Your task to perform on an android device: empty trash in google photos Image 0: 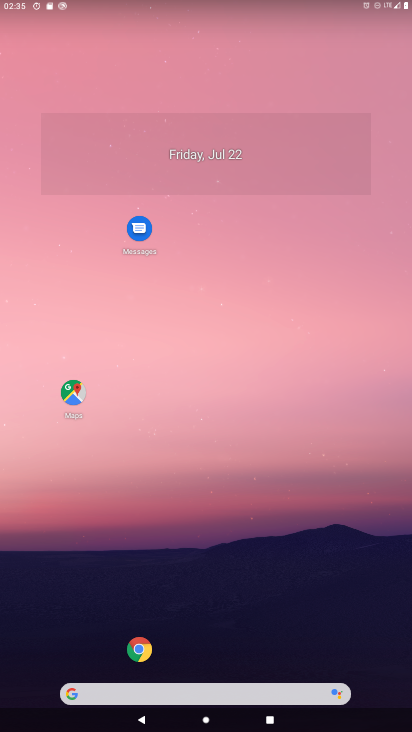
Step 0: drag from (60, 644) to (308, 154)
Your task to perform on an android device: empty trash in google photos Image 1: 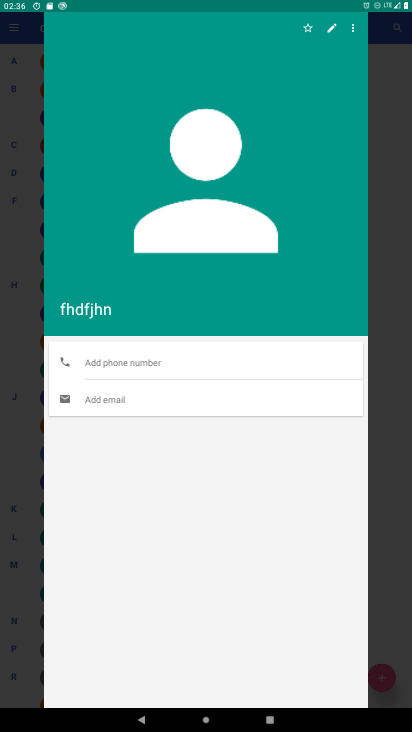
Step 1: press home button
Your task to perform on an android device: empty trash in google photos Image 2: 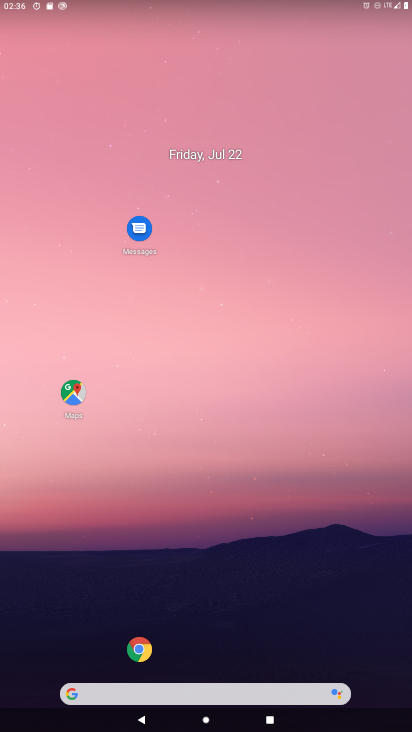
Step 2: drag from (51, 661) to (321, 0)
Your task to perform on an android device: empty trash in google photos Image 3: 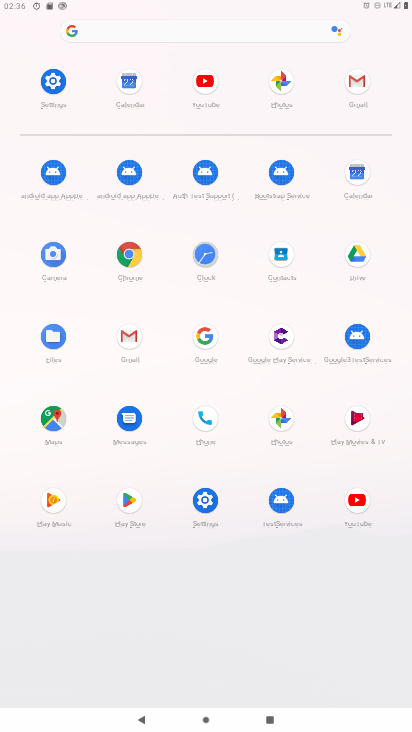
Step 3: click (274, 418)
Your task to perform on an android device: empty trash in google photos Image 4: 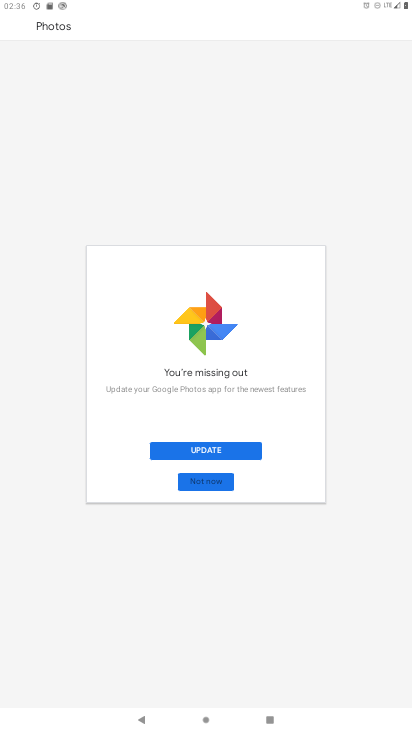
Step 4: task complete